Your task to perform on an android device: change the clock style Image 0: 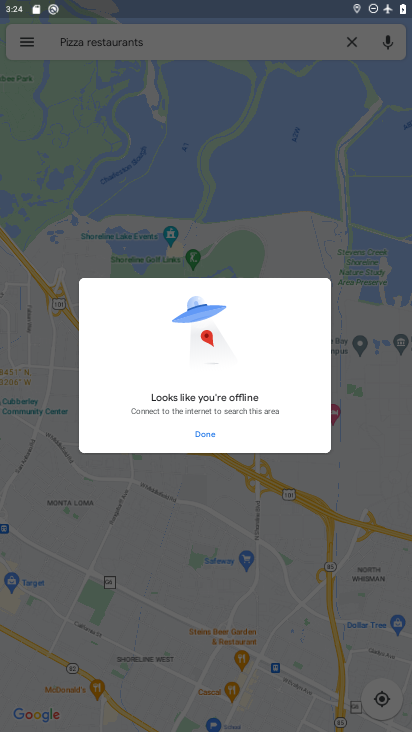
Step 0: press home button
Your task to perform on an android device: change the clock style Image 1: 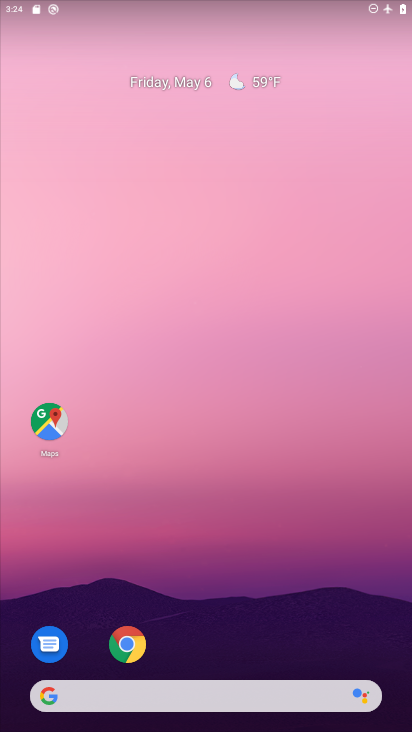
Step 1: drag from (207, 731) to (197, 185)
Your task to perform on an android device: change the clock style Image 2: 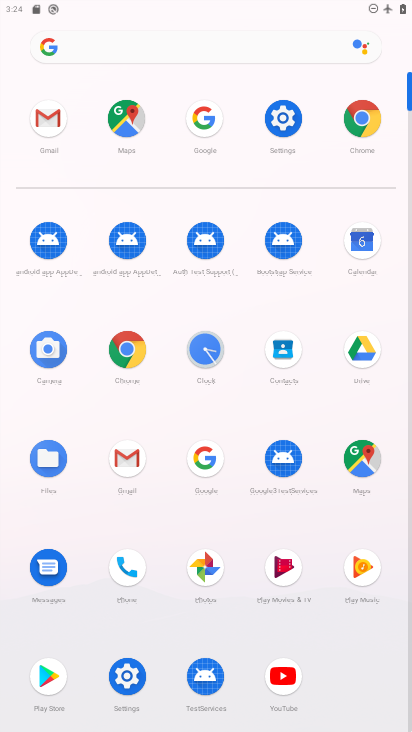
Step 2: click (207, 351)
Your task to perform on an android device: change the clock style Image 3: 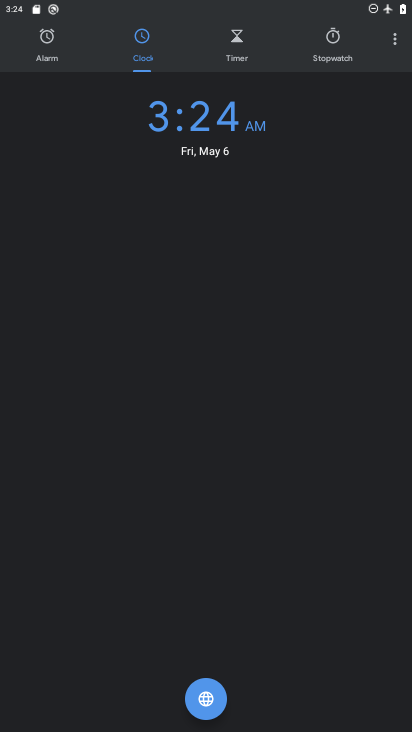
Step 3: click (397, 38)
Your task to perform on an android device: change the clock style Image 4: 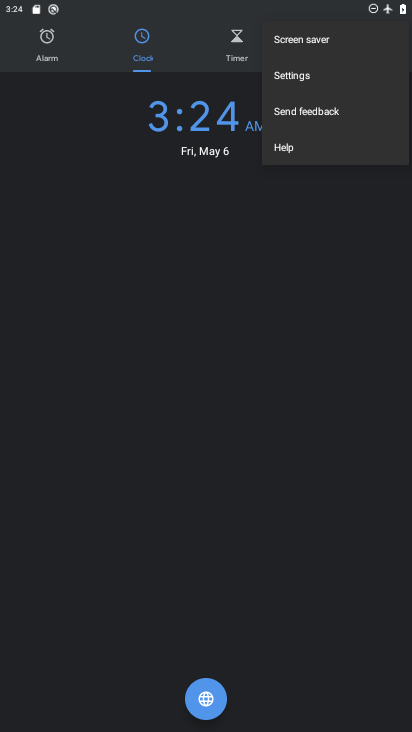
Step 4: click (290, 73)
Your task to perform on an android device: change the clock style Image 5: 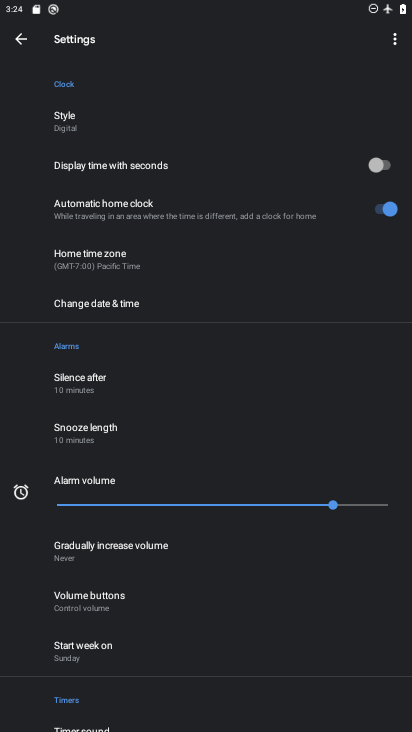
Step 5: click (73, 126)
Your task to perform on an android device: change the clock style Image 6: 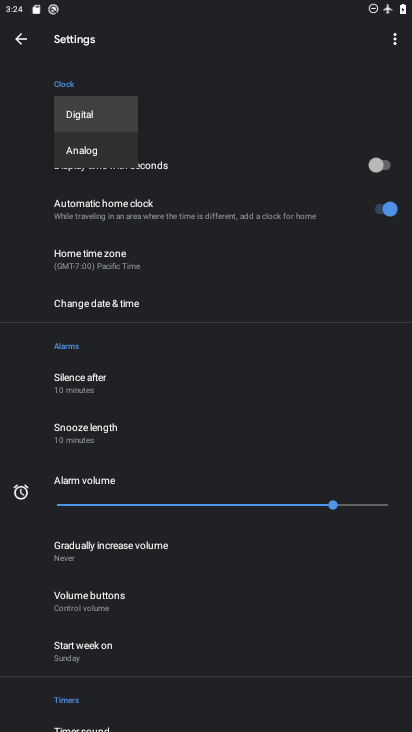
Step 6: click (94, 153)
Your task to perform on an android device: change the clock style Image 7: 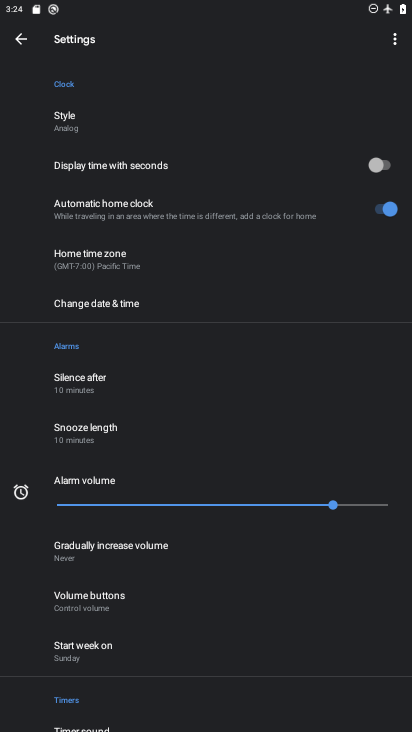
Step 7: task complete